Your task to perform on an android device: delete a single message in the gmail app Image 0: 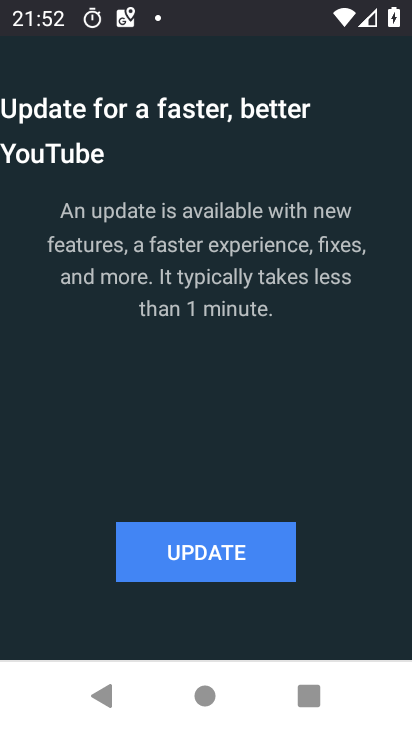
Step 0: press home button
Your task to perform on an android device: delete a single message in the gmail app Image 1: 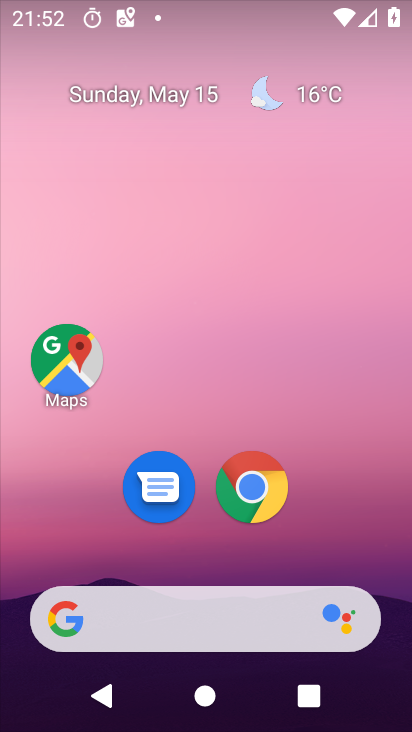
Step 1: drag from (388, 666) to (337, 207)
Your task to perform on an android device: delete a single message in the gmail app Image 2: 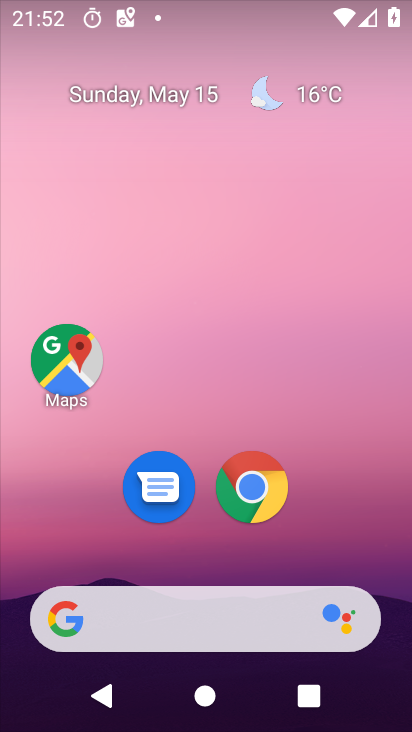
Step 2: drag from (373, 434) to (358, 247)
Your task to perform on an android device: delete a single message in the gmail app Image 3: 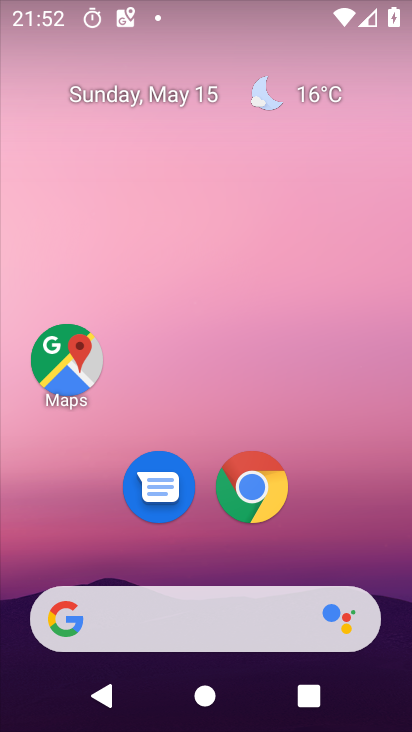
Step 3: drag from (396, 658) to (385, 330)
Your task to perform on an android device: delete a single message in the gmail app Image 4: 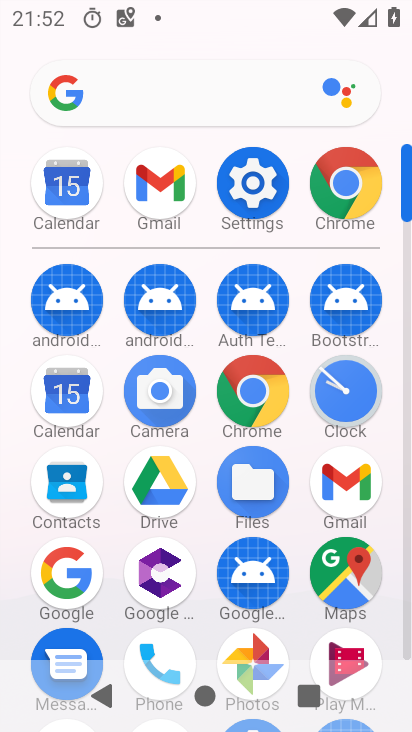
Step 4: click (358, 465)
Your task to perform on an android device: delete a single message in the gmail app Image 5: 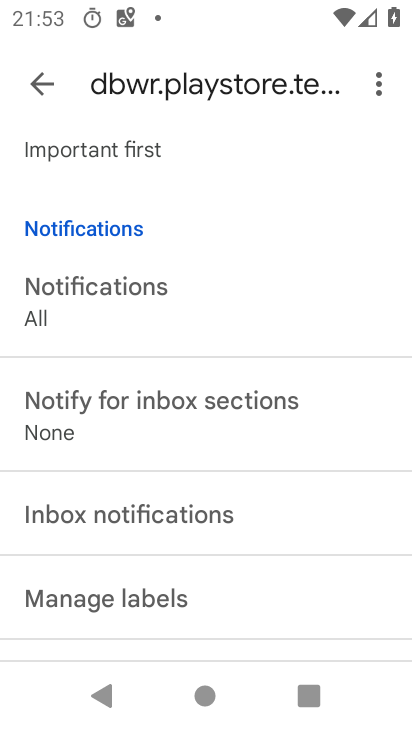
Step 5: click (41, 79)
Your task to perform on an android device: delete a single message in the gmail app Image 6: 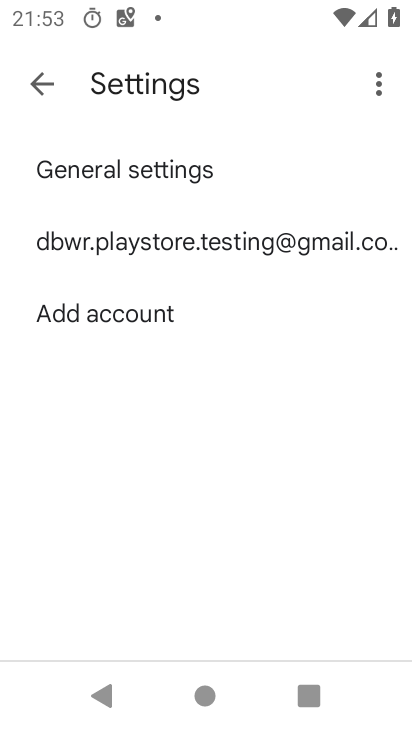
Step 6: click (41, 79)
Your task to perform on an android device: delete a single message in the gmail app Image 7: 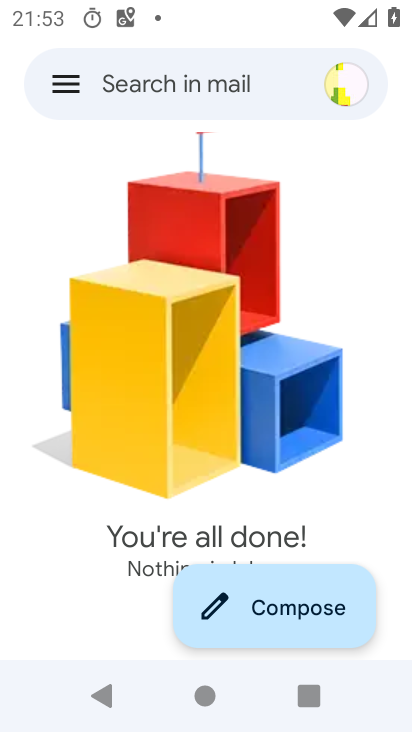
Step 7: click (67, 81)
Your task to perform on an android device: delete a single message in the gmail app Image 8: 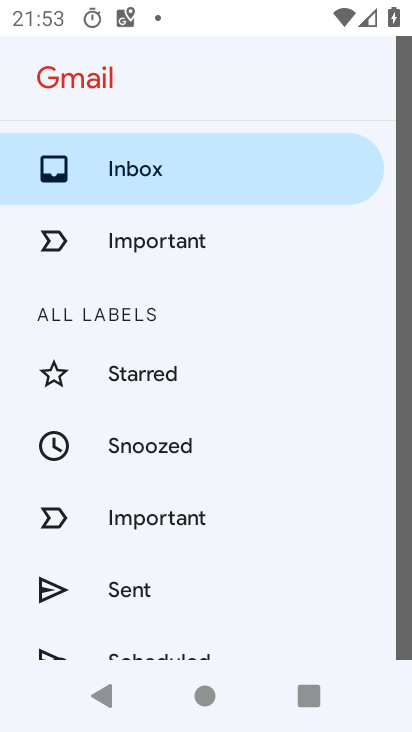
Step 8: click (88, 165)
Your task to perform on an android device: delete a single message in the gmail app Image 9: 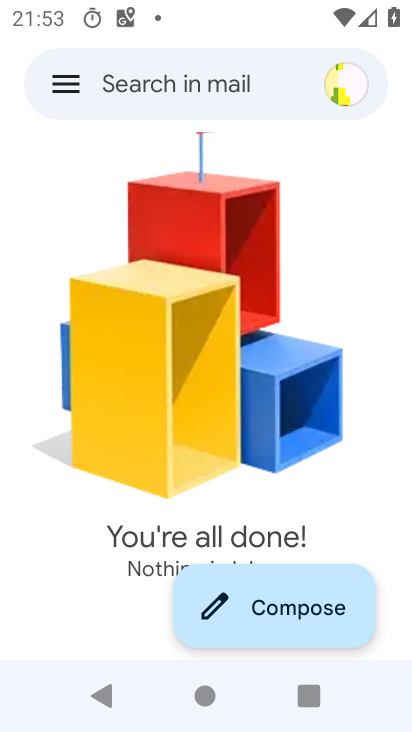
Step 9: task complete